Your task to perform on an android device: Open CNN.com Image 0: 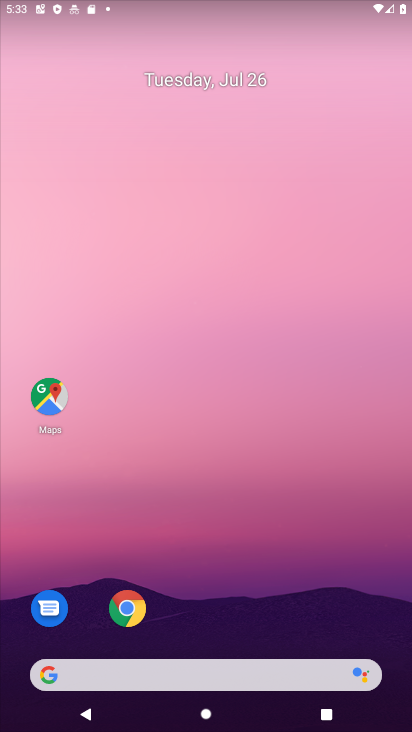
Step 0: press home button
Your task to perform on an android device: Open CNN.com Image 1: 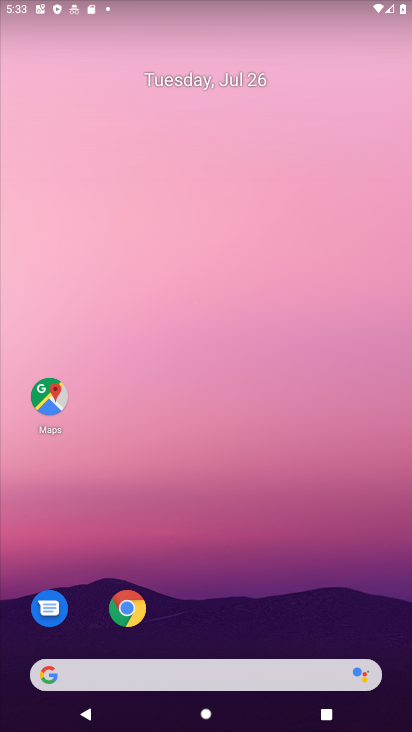
Step 1: click (56, 682)
Your task to perform on an android device: Open CNN.com Image 2: 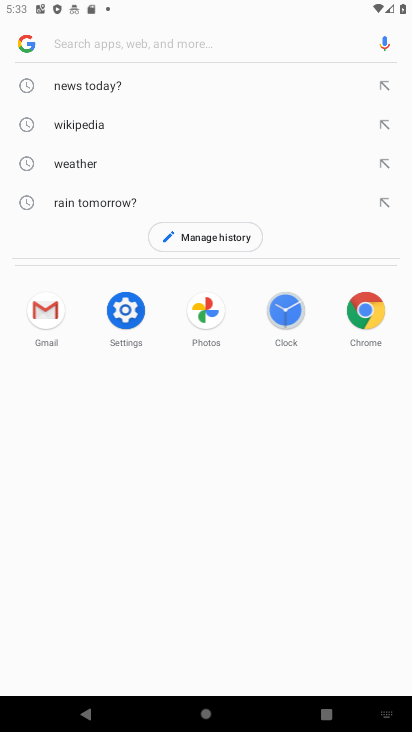
Step 2: type " CNN.com"
Your task to perform on an android device: Open CNN.com Image 3: 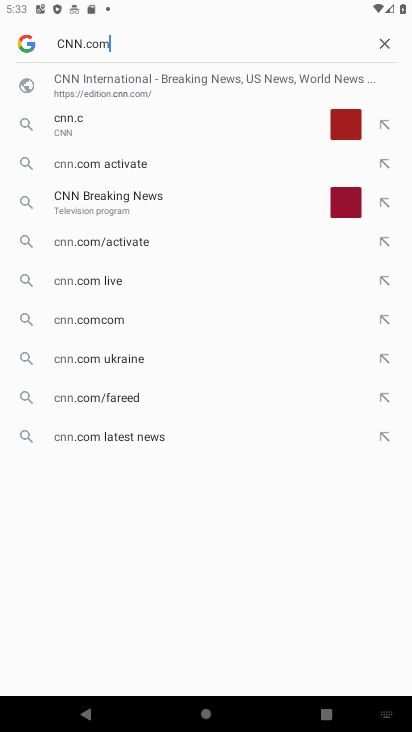
Step 3: press enter
Your task to perform on an android device: Open CNN.com Image 4: 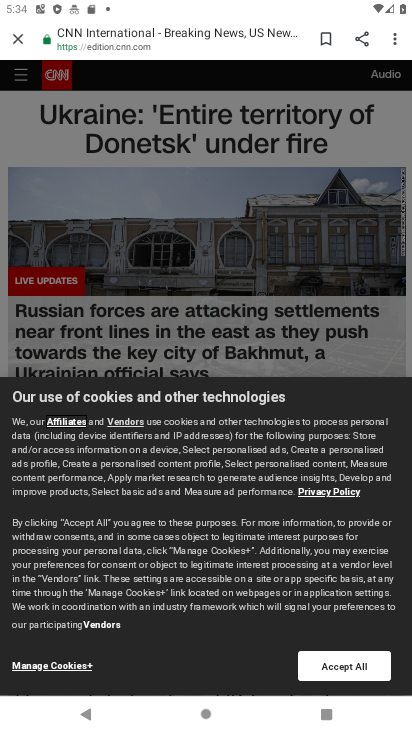
Step 4: task complete